Your task to perform on an android device: star an email in the gmail app Image 0: 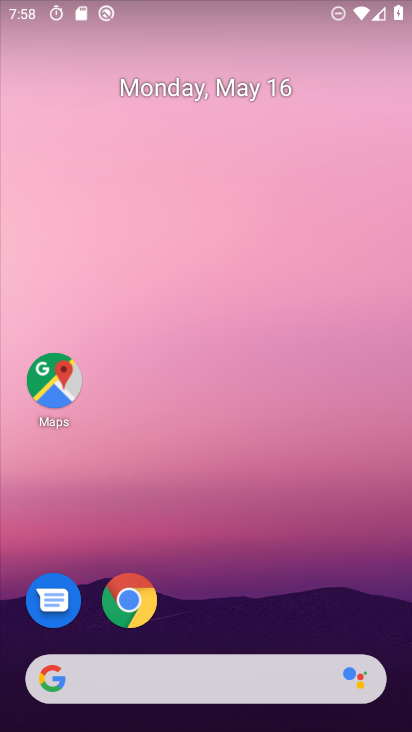
Step 0: drag from (170, 681) to (282, 436)
Your task to perform on an android device: star an email in the gmail app Image 1: 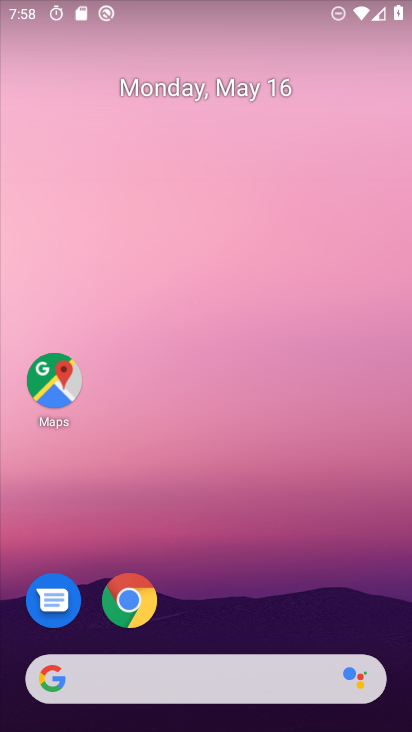
Step 1: drag from (191, 670) to (313, 226)
Your task to perform on an android device: star an email in the gmail app Image 2: 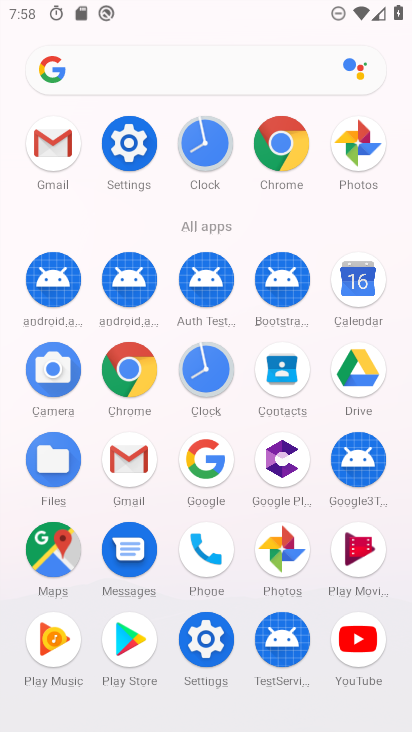
Step 2: click (62, 143)
Your task to perform on an android device: star an email in the gmail app Image 3: 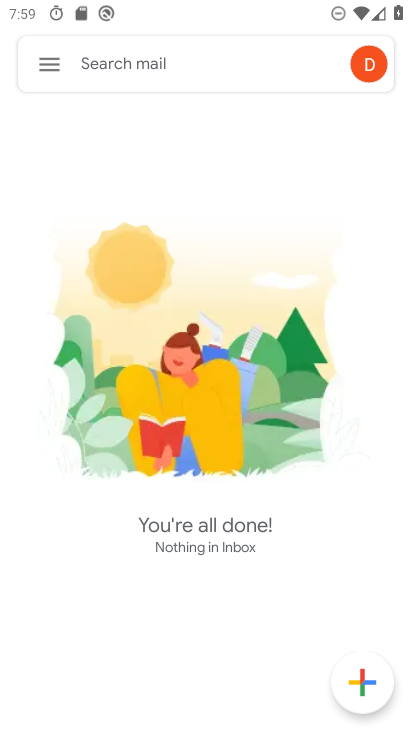
Step 3: task complete